Your task to perform on an android device: What's on my calendar today? Image 0: 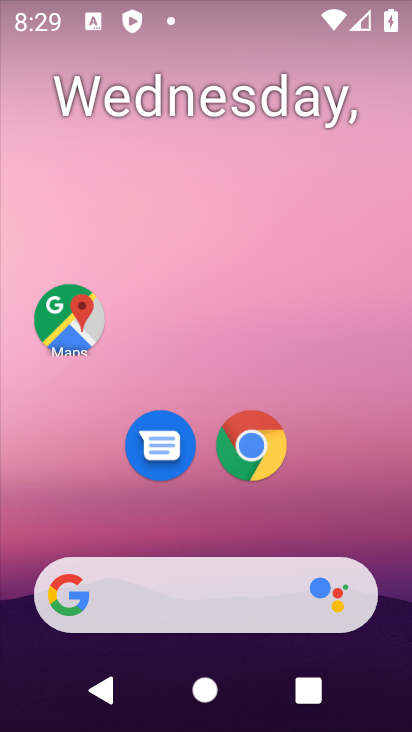
Step 0: drag from (345, 400) to (273, 64)
Your task to perform on an android device: What's on my calendar today? Image 1: 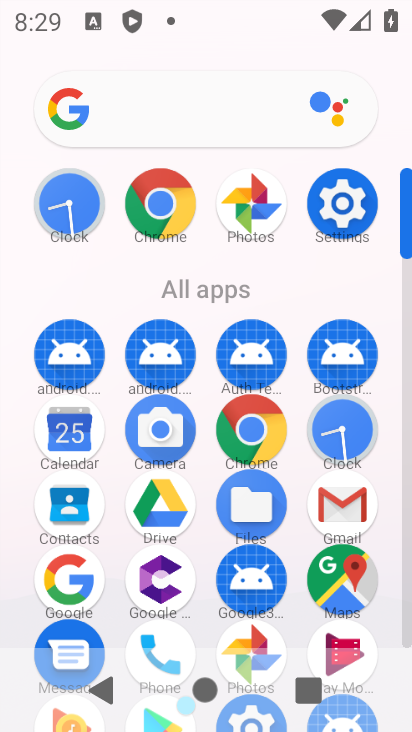
Step 1: click (91, 439)
Your task to perform on an android device: What's on my calendar today? Image 2: 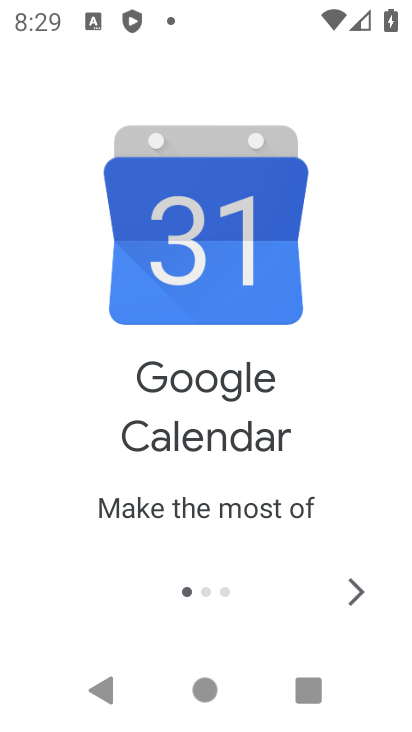
Step 2: click (357, 581)
Your task to perform on an android device: What's on my calendar today? Image 3: 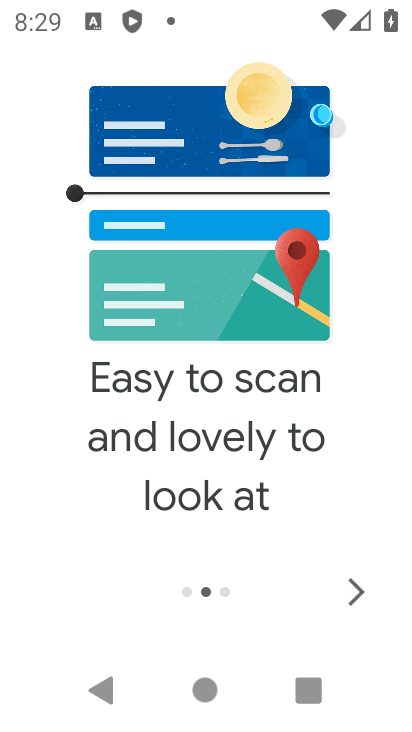
Step 3: click (382, 595)
Your task to perform on an android device: What's on my calendar today? Image 4: 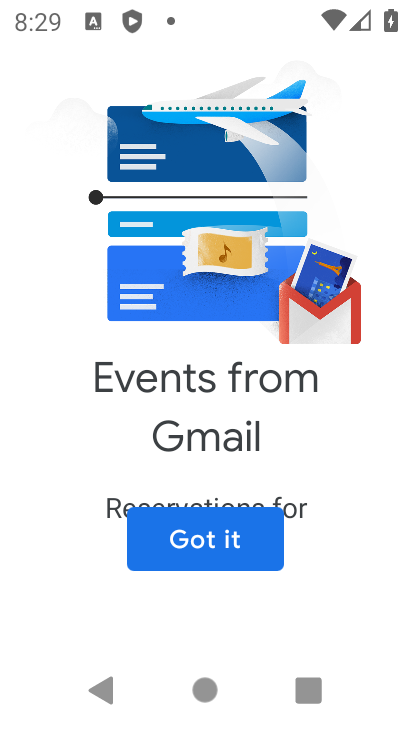
Step 4: click (171, 536)
Your task to perform on an android device: What's on my calendar today? Image 5: 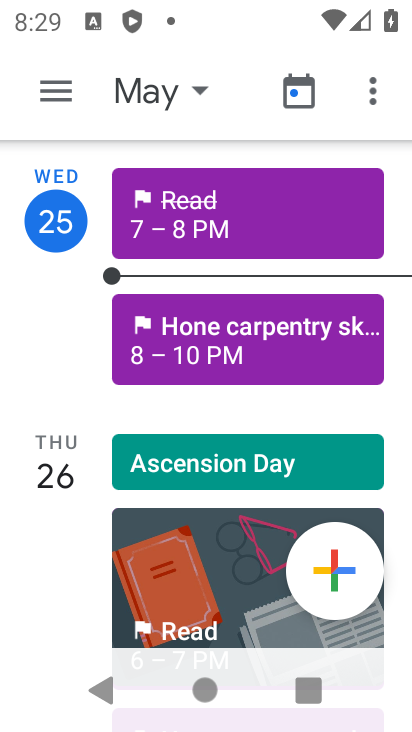
Step 5: click (157, 88)
Your task to perform on an android device: What's on my calendar today? Image 6: 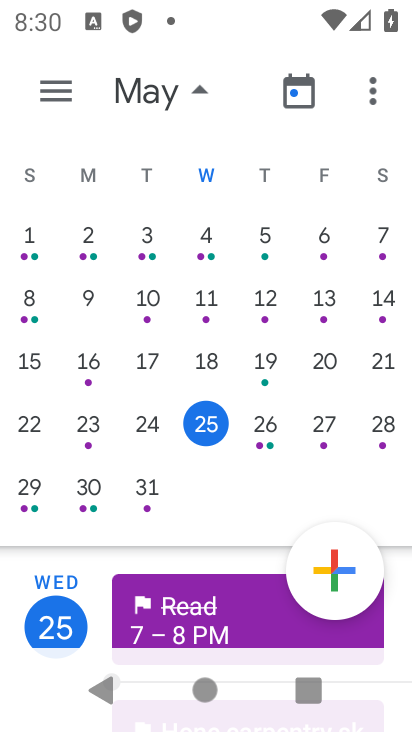
Step 6: task complete